Your task to perform on an android device: open the mobile data screen to see how much data has been used Image 0: 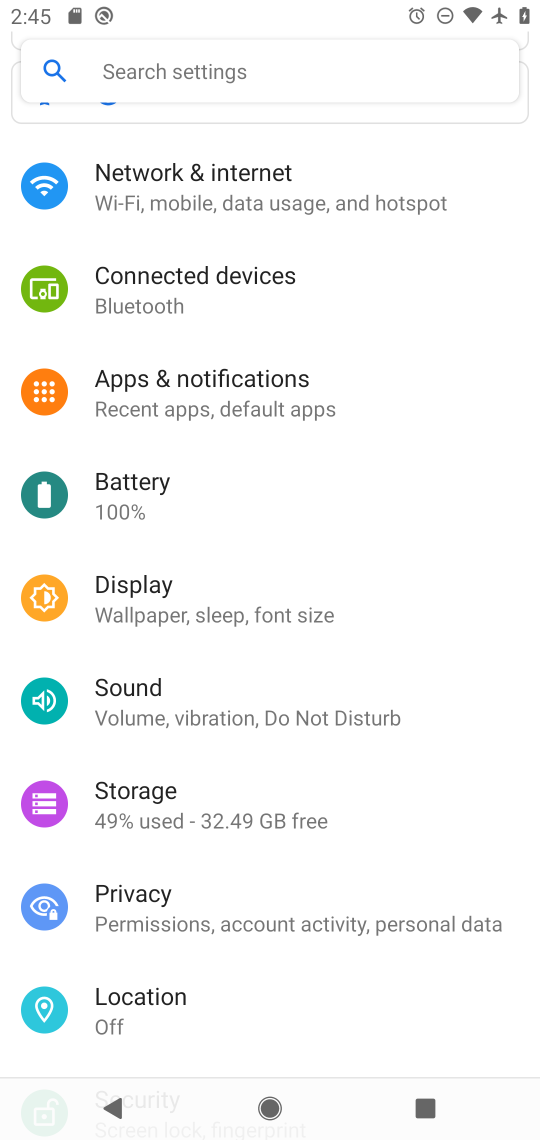
Step 0: press home button
Your task to perform on an android device: open the mobile data screen to see how much data has been used Image 1: 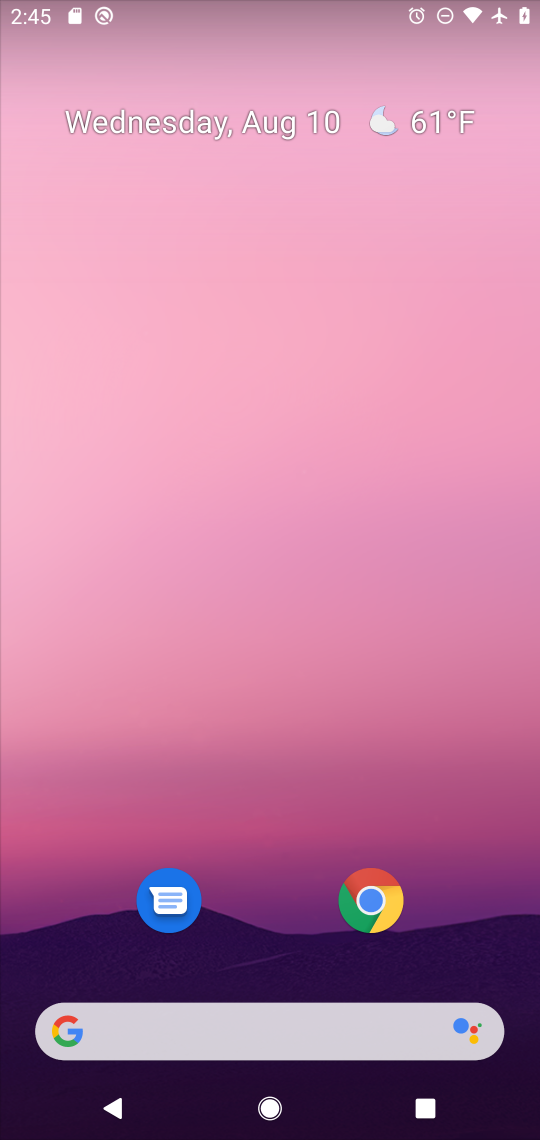
Step 1: drag from (276, 809) to (299, 24)
Your task to perform on an android device: open the mobile data screen to see how much data has been used Image 2: 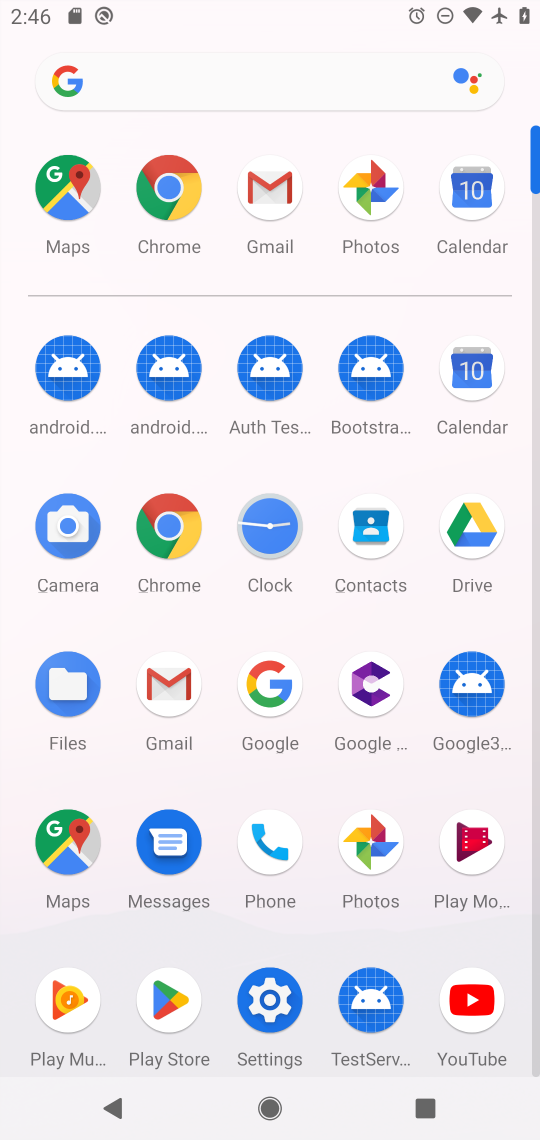
Step 2: click (271, 997)
Your task to perform on an android device: open the mobile data screen to see how much data has been used Image 3: 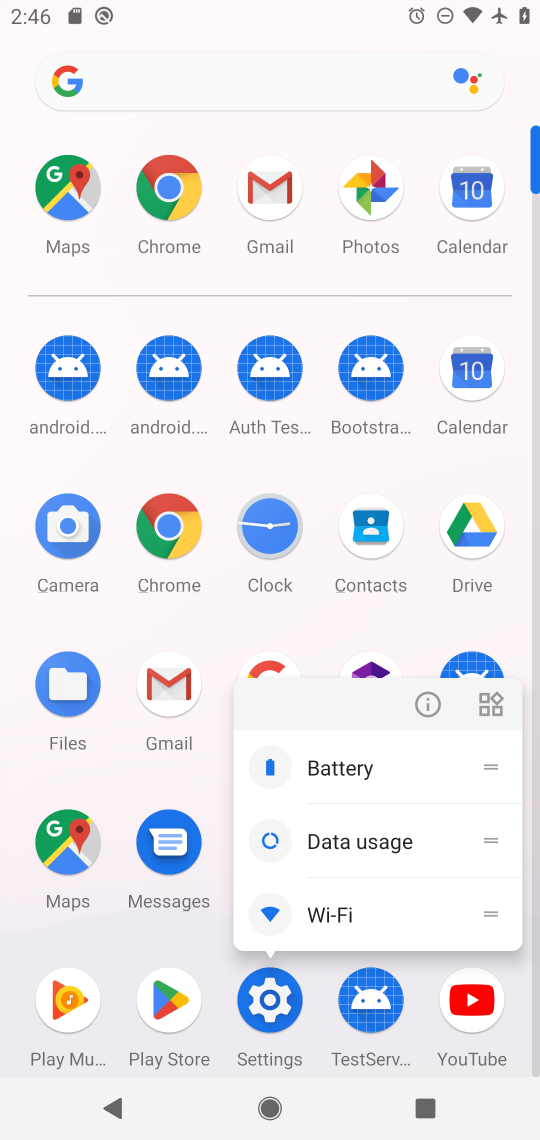
Step 3: click (271, 999)
Your task to perform on an android device: open the mobile data screen to see how much data has been used Image 4: 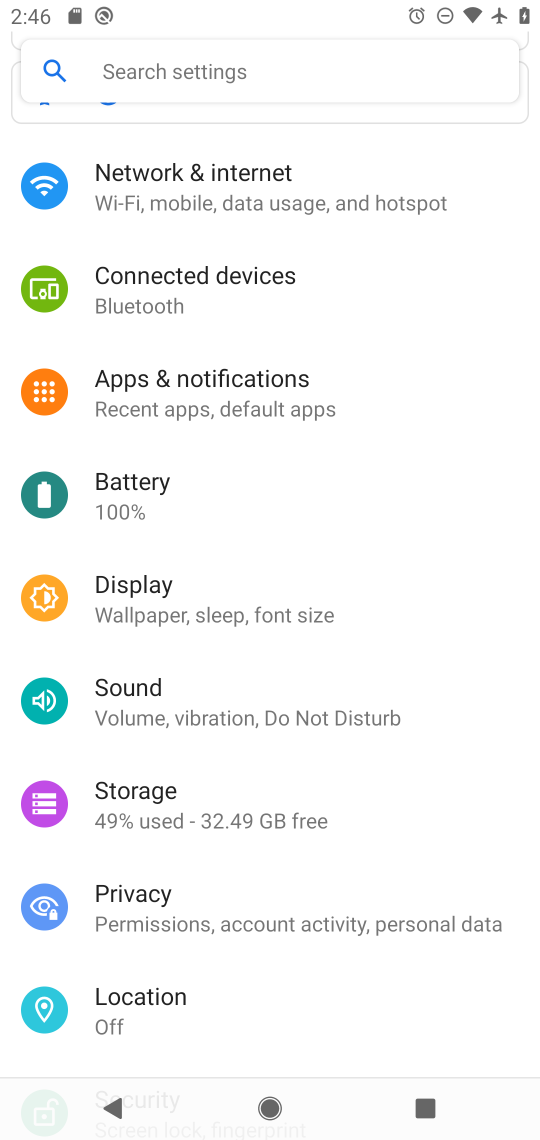
Step 4: click (200, 177)
Your task to perform on an android device: open the mobile data screen to see how much data has been used Image 5: 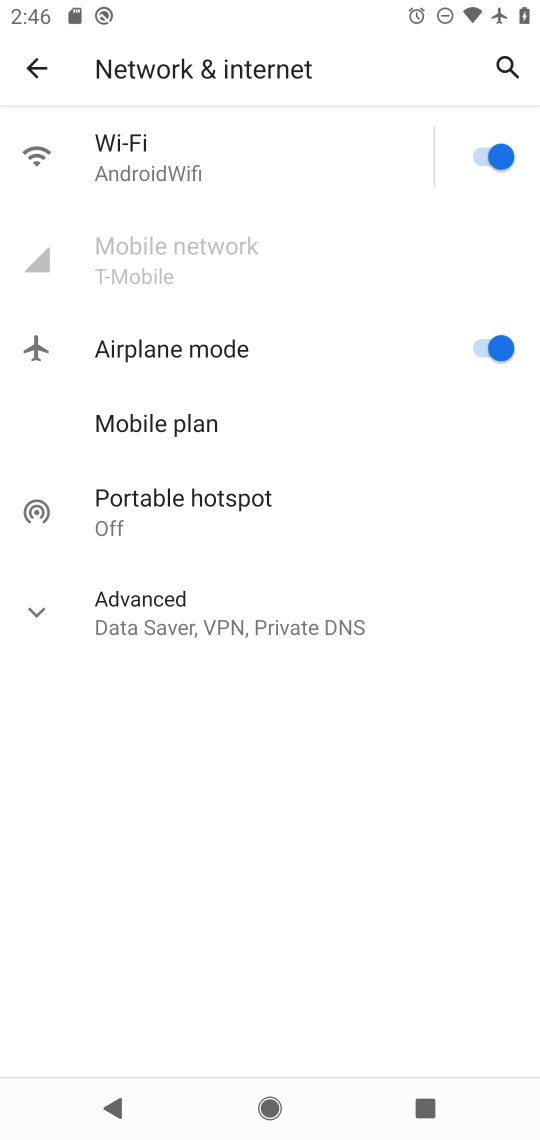
Step 5: click (494, 353)
Your task to perform on an android device: open the mobile data screen to see how much data has been used Image 6: 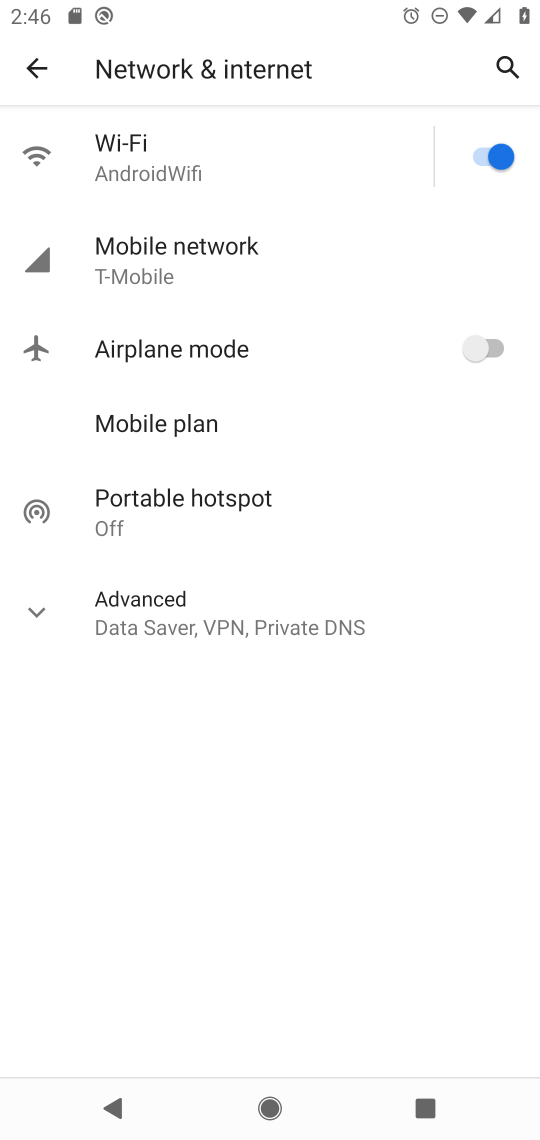
Step 6: click (277, 252)
Your task to perform on an android device: open the mobile data screen to see how much data has been used Image 7: 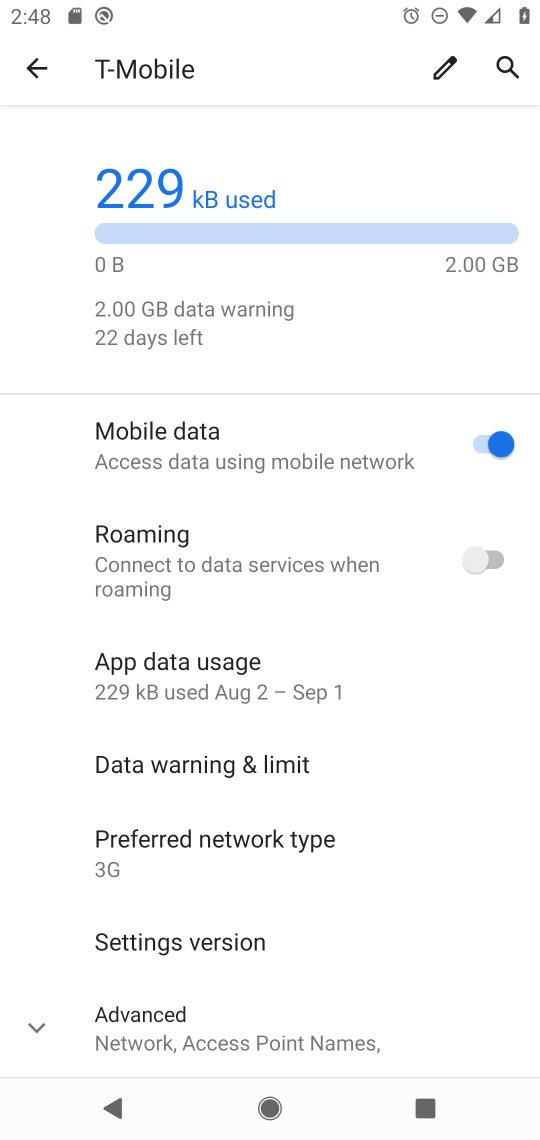
Step 7: task complete